Your task to perform on an android device: choose inbox layout in the gmail app Image 0: 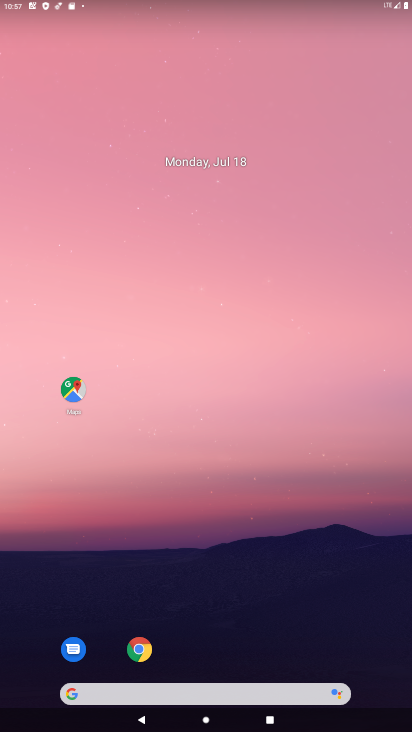
Step 0: drag from (163, 717) to (301, 216)
Your task to perform on an android device: choose inbox layout in the gmail app Image 1: 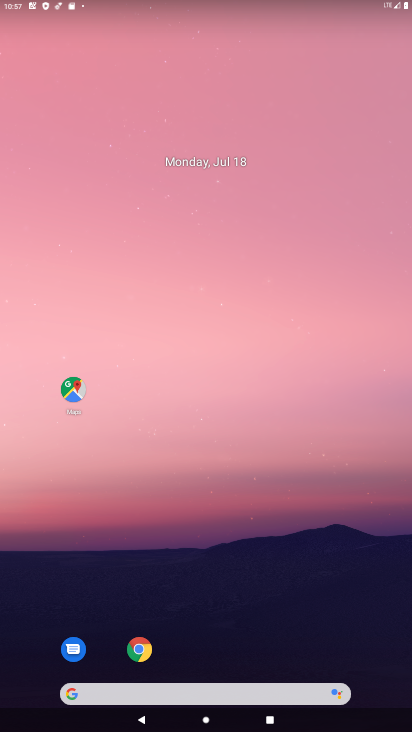
Step 1: drag from (165, 724) to (216, 65)
Your task to perform on an android device: choose inbox layout in the gmail app Image 2: 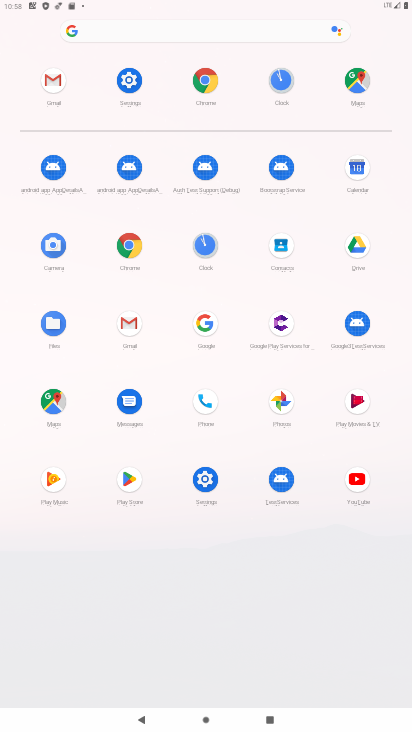
Step 2: click (50, 82)
Your task to perform on an android device: choose inbox layout in the gmail app Image 3: 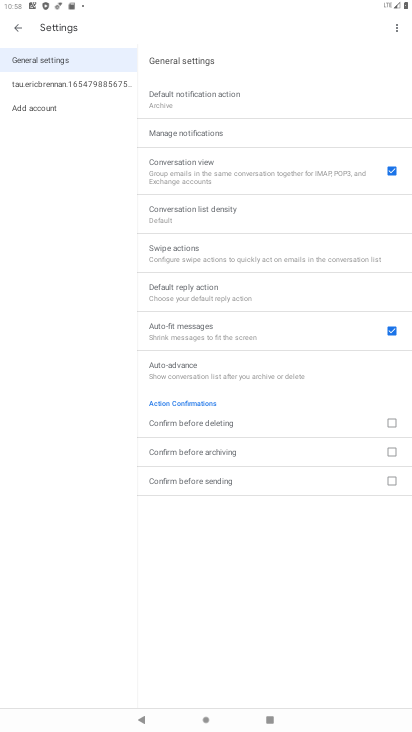
Step 3: click (66, 83)
Your task to perform on an android device: choose inbox layout in the gmail app Image 4: 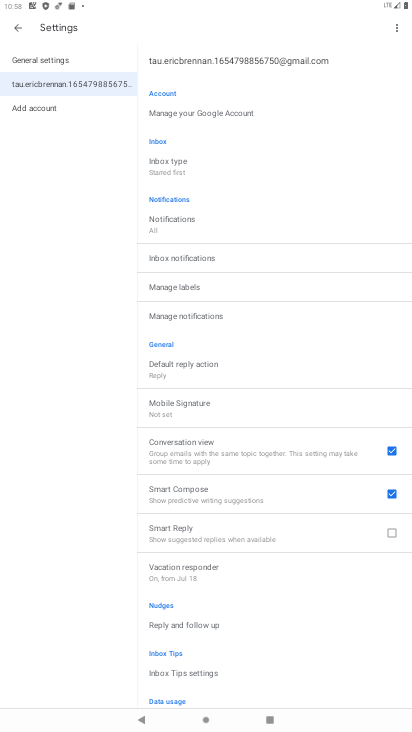
Step 4: click (179, 171)
Your task to perform on an android device: choose inbox layout in the gmail app Image 5: 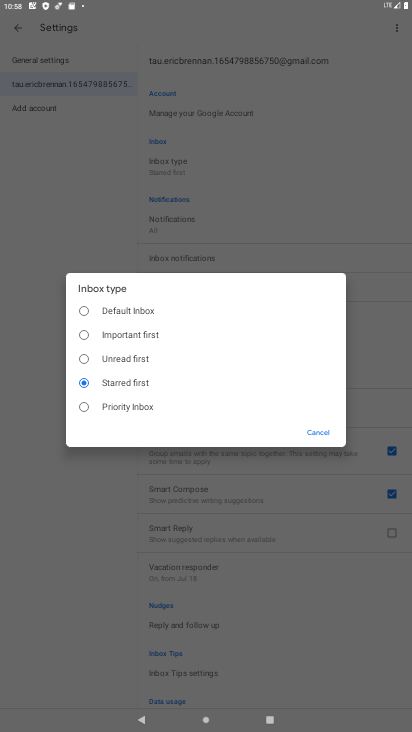
Step 5: click (109, 310)
Your task to perform on an android device: choose inbox layout in the gmail app Image 6: 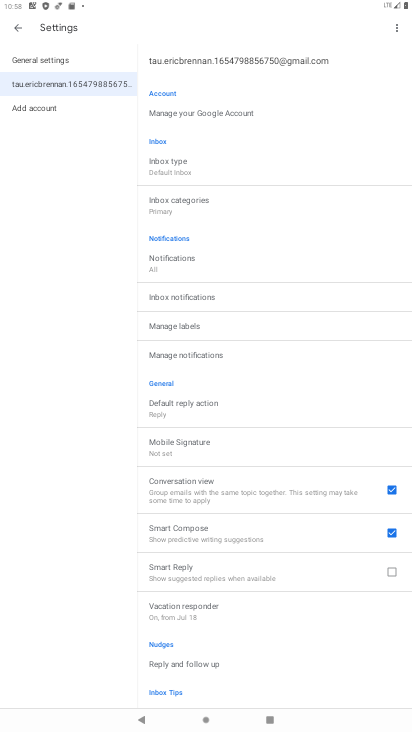
Step 6: task complete